Your task to perform on an android device: What is the recent news? Image 0: 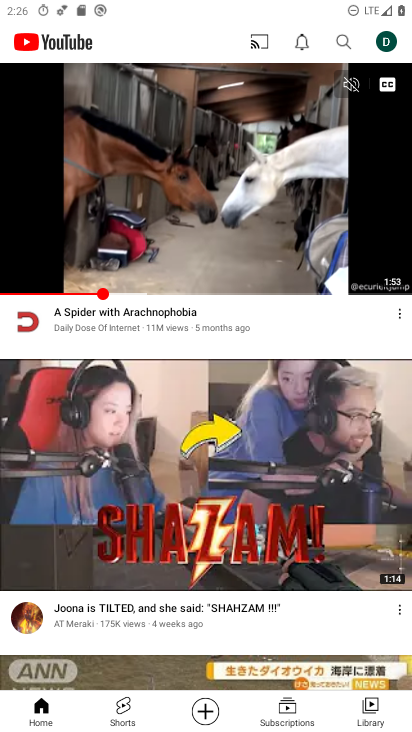
Step 0: drag from (192, 326) to (222, 4)
Your task to perform on an android device: What is the recent news? Image 1: 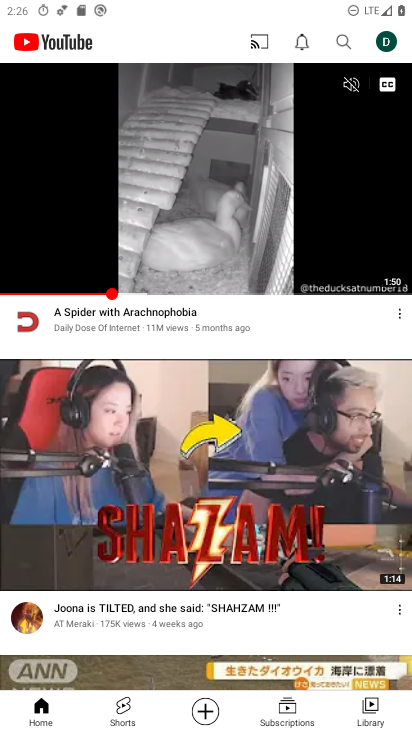
Step 1: press home button
Your task to perform on an android device: What is the recent news? Image 2: 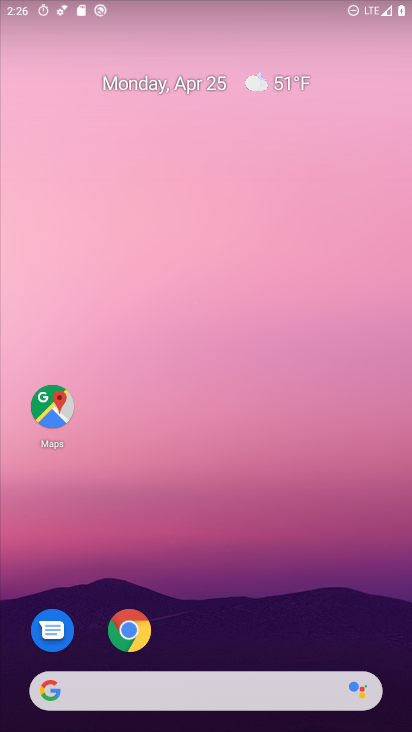
Step 2: drag from (209, 664) to (253, 206)
Your task to perform on an android device: What is the recent news? Image 3: 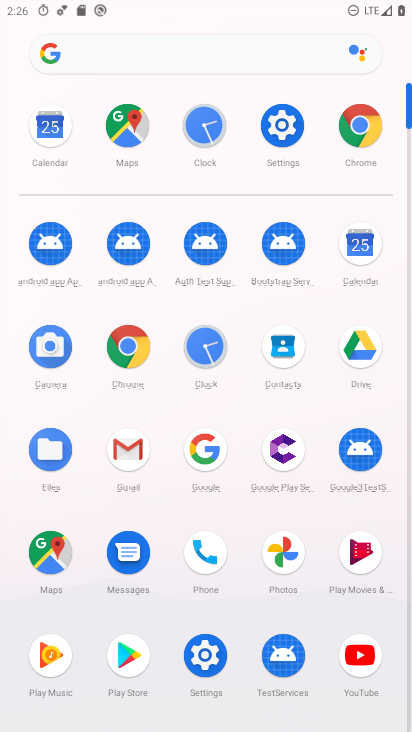
Step 3: click (202, 39)
Your task to perform on an android device: What is the recent news? Image 4: 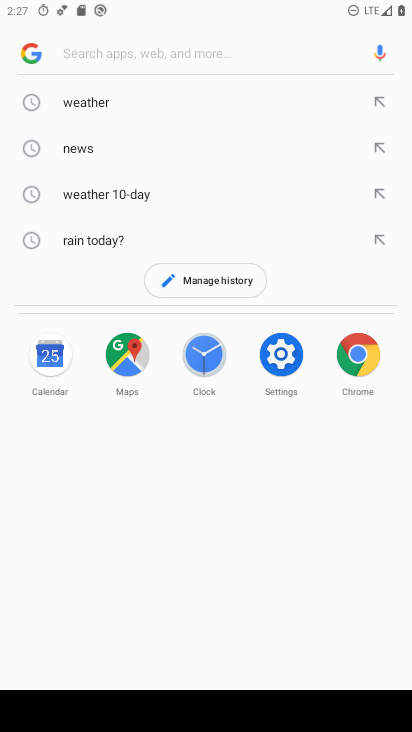
Step 4: click (122, 151)
Your task to perform on an android device: What is the recent news? Image 5: 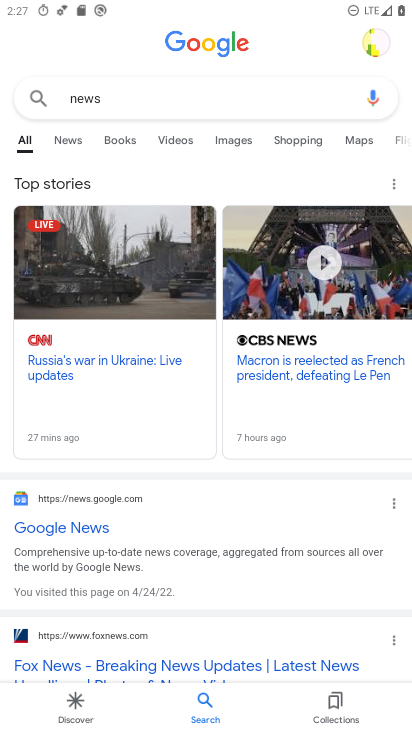
Step 5: task complete